Your task to perform on an android device: Open Maps and search for coffee Image 0: 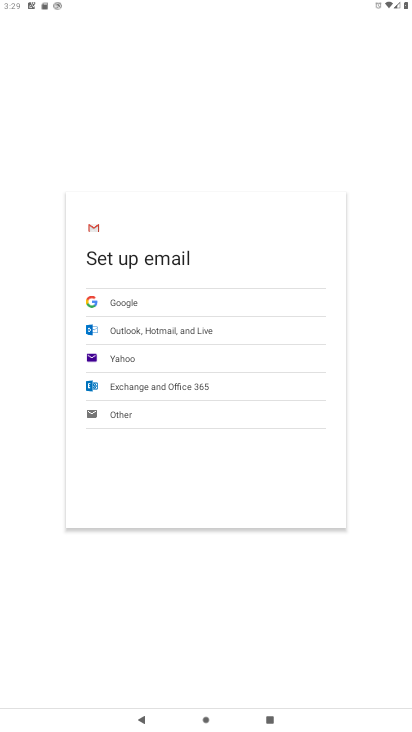
Step 0: press home button
Your task to perform on an android device: Open Maps and search for coffee Image 1: 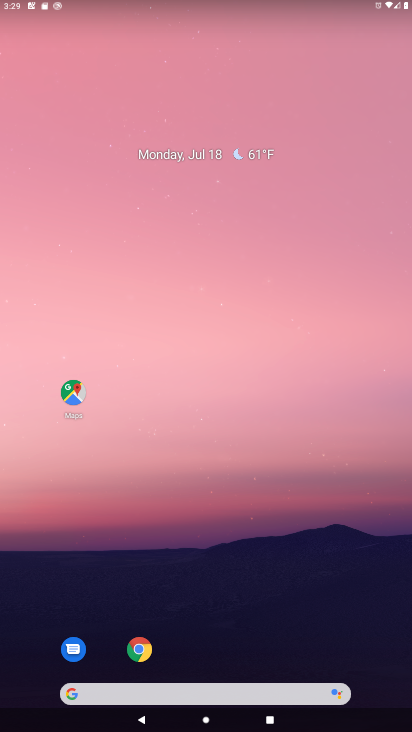
Step 1: click (66, 382)
Your task to perform on an android device: Open Maps and search for coffee Image 2: 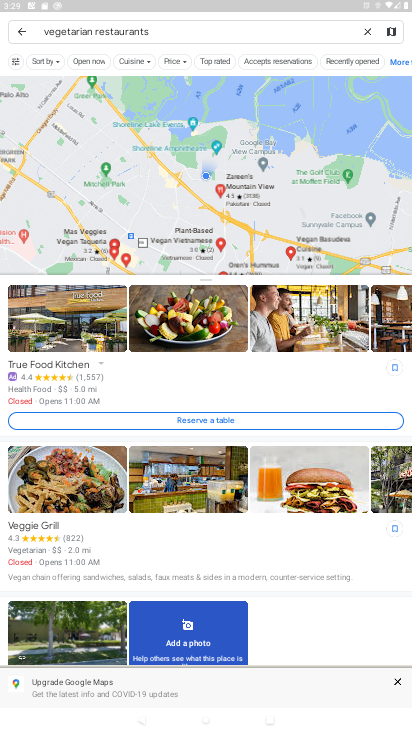
Step 2: click (371, 29)
Your task to perform on an android device: Open Maps and search for coffee Image 3: 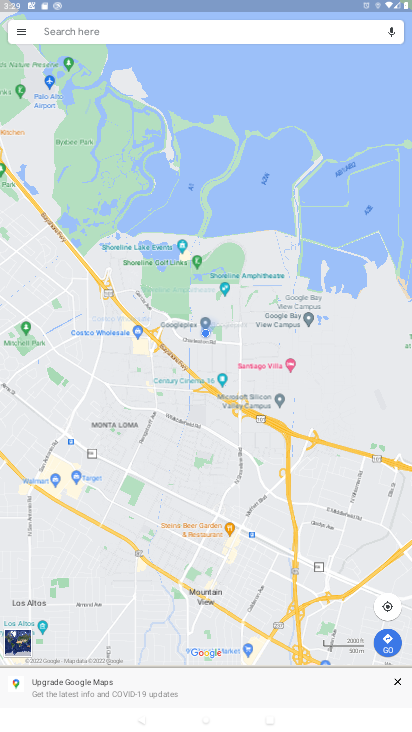
Step 3: click (271, 29)
Your task to perform on an android device: Open Maps and search for coffee Image 4: 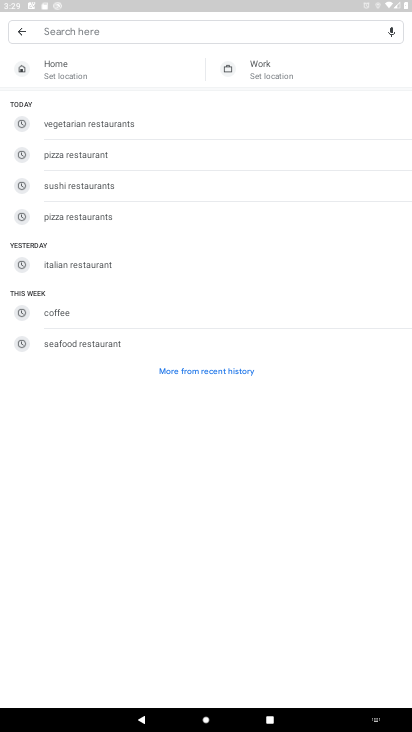
Step 4: type "coffee"
Your task to perform on an android device: Open Maps and search for coffee Image 5: 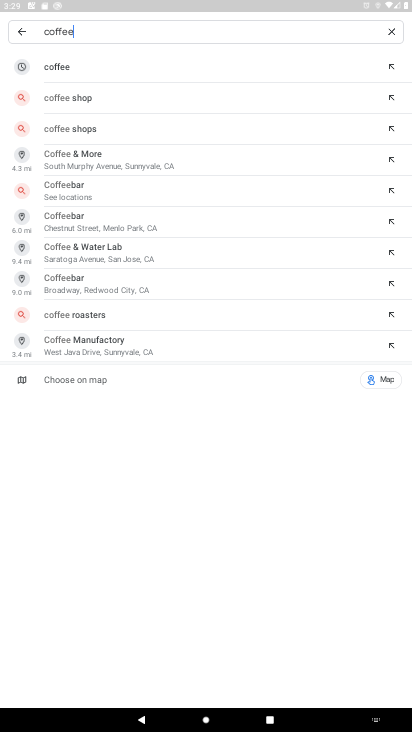
Step 5: click (81, 70)
Your task to perform on an android device: Open Maps and search for coffee Image 6: 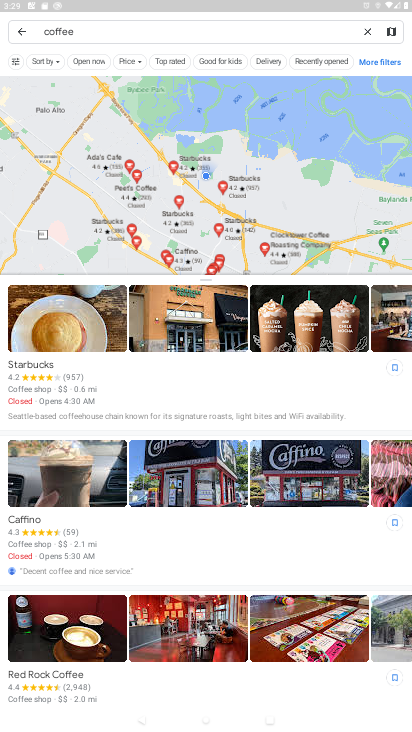
Step 6: task complete